Your task to perform on an android device: Open Yahoo.com Image 0: 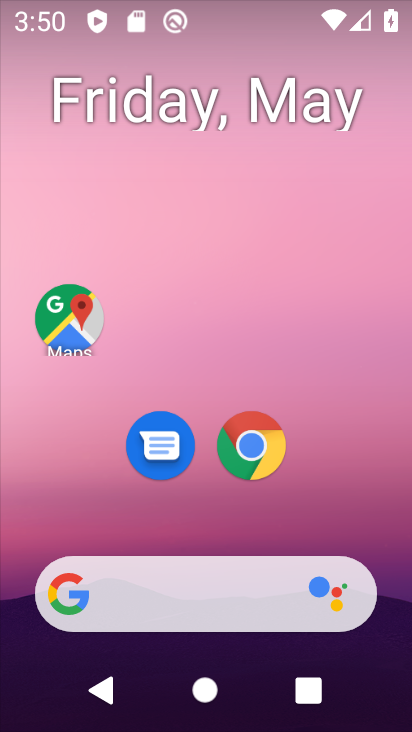
Step 0: click (246, 441)
Your task to perform on an android device: Open Yahoo.com Image 1: 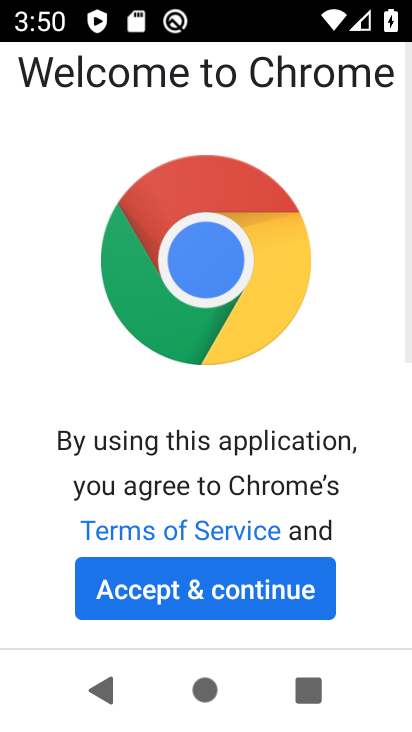
Step 1: click (282, 587)
Your task to perform on an android device: Open Yahoo.com Image 2: 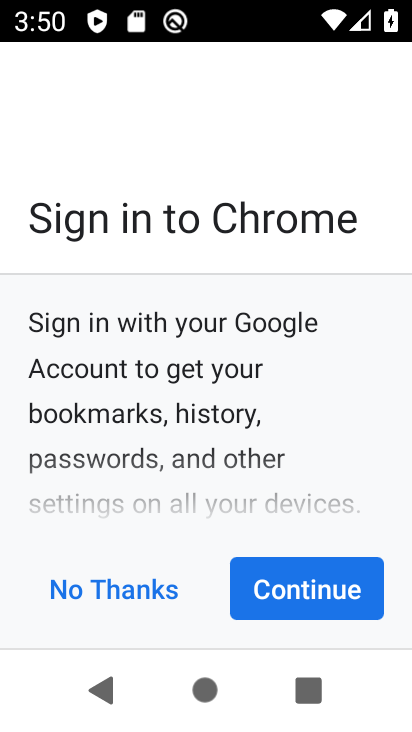
Step 2: click (281, 601)
Your task to perform on an android device: Open Yahoo.com Image 3: 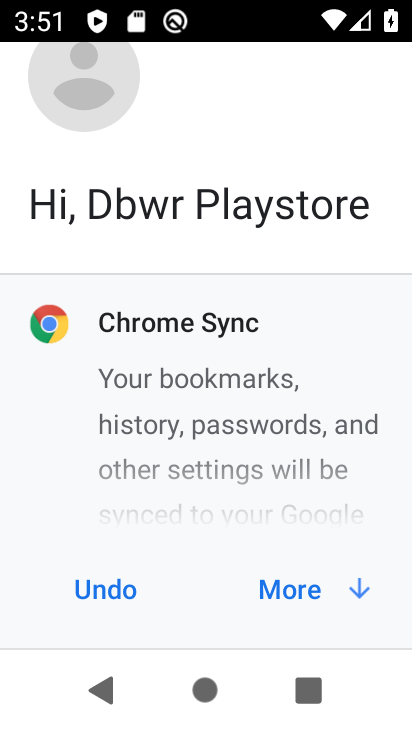
Step 3: click (289, 587)
Your task to perform on an android device: Open Yahoo.com Image 4: 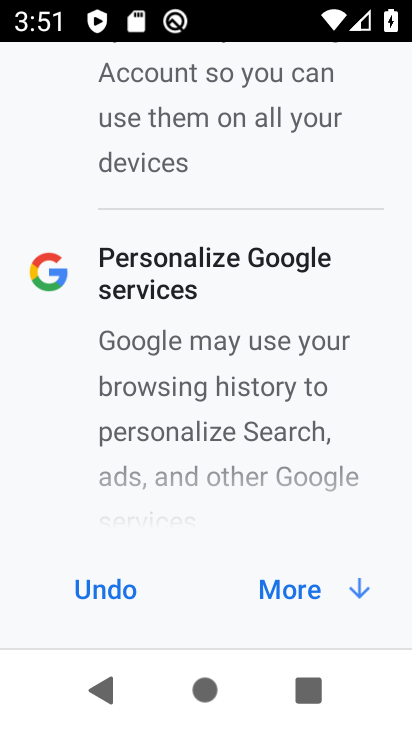
Step 4: click (290, 590)
Your task to perform on an android device: Open Yahoo.com Image 5: 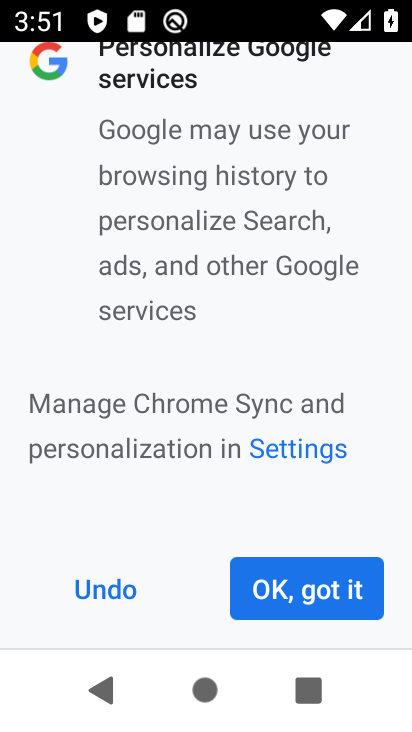
Step 5: click (290, 591)
Your task to perform on an android device: Open Yahoo.com Image 6: 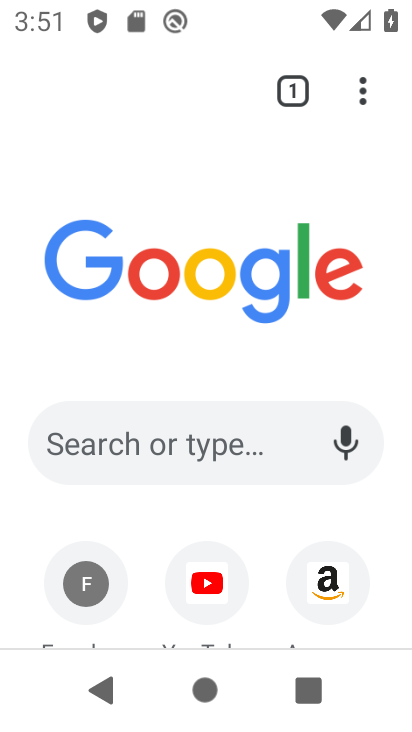
Step 6: drag from (214, 605) to (265, 202)
Your task to perform on an android device: Open Yahoo.com Image 7: 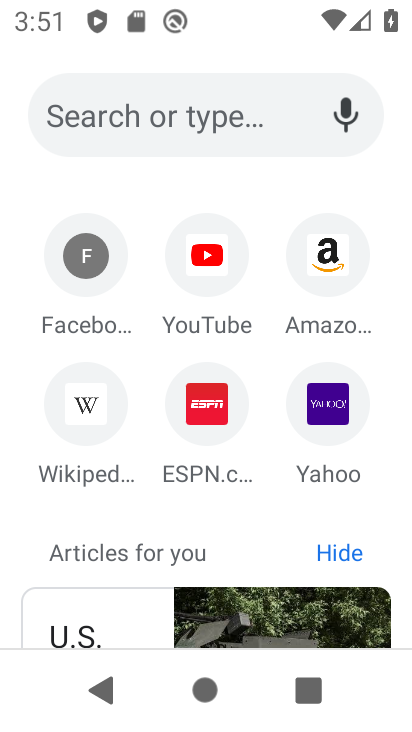
Step 7: click (327, 419)
Your task to perform on an android device: Open Yahoo.com Image 8: 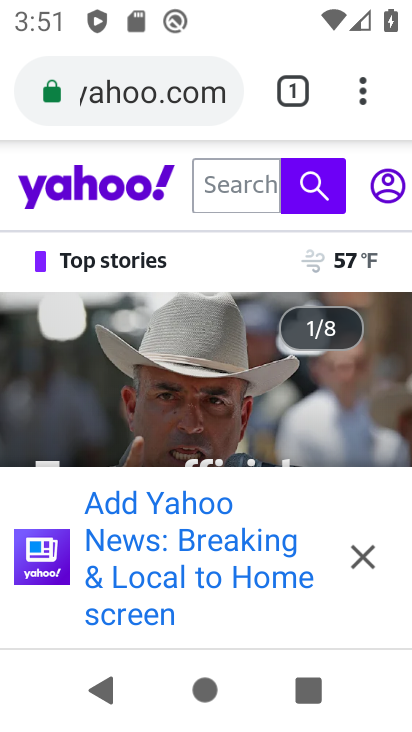
Step 8: task complete